Your task to perform on an android device: toggle airplane mode Image 0: 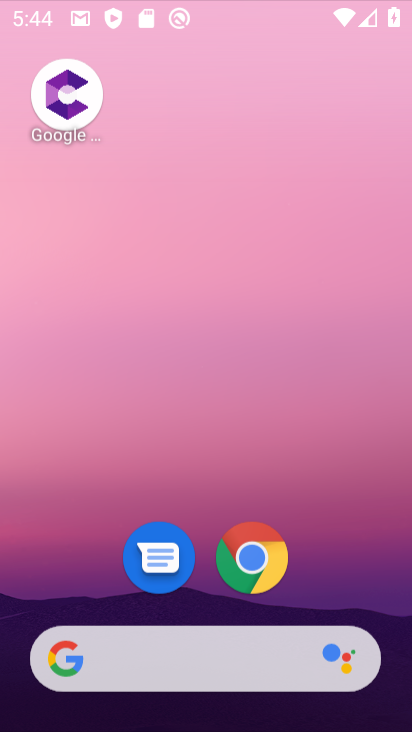
Step 0: drag from (166, 9) to (200, 17)
Your task to perform on an android device: toggle airplane mode Image 1: 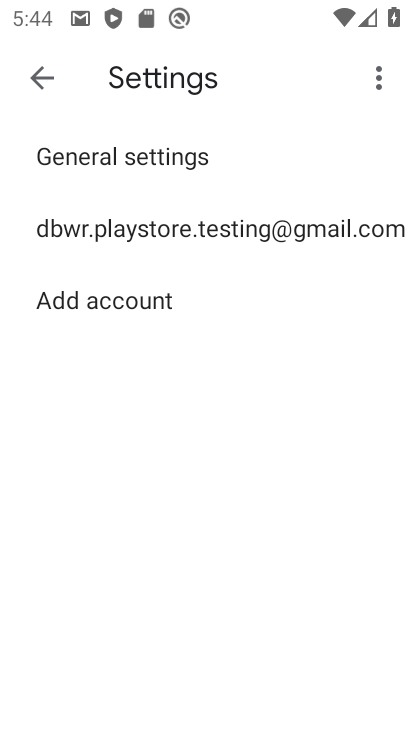
Step 1: press home button
Your task to perform on an android device: toggle airplane mode Image 2: 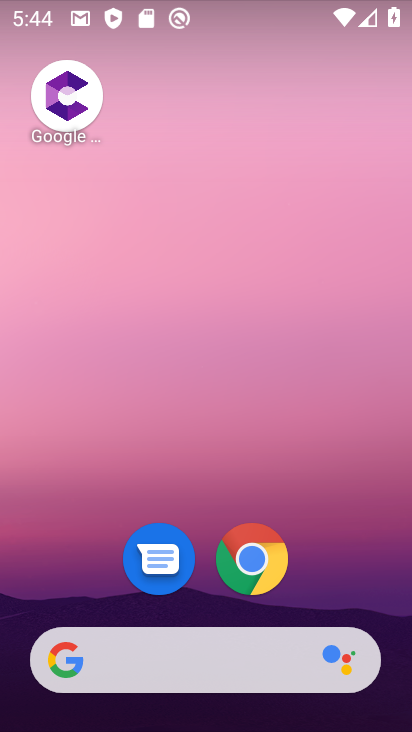
Step 2: drag from (341, 506) to (286, 106)
Your task to perform on an android device: toggle airplane mode Image 3: 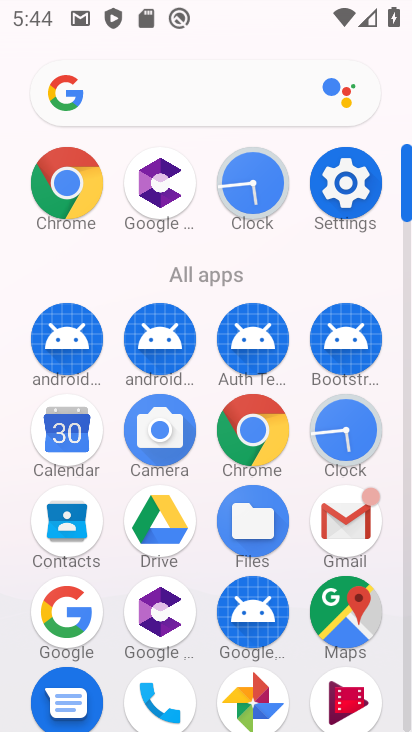
Step 3: click (346, 178)
Your task to perform on an android device: toggle airplane mode Image 4: 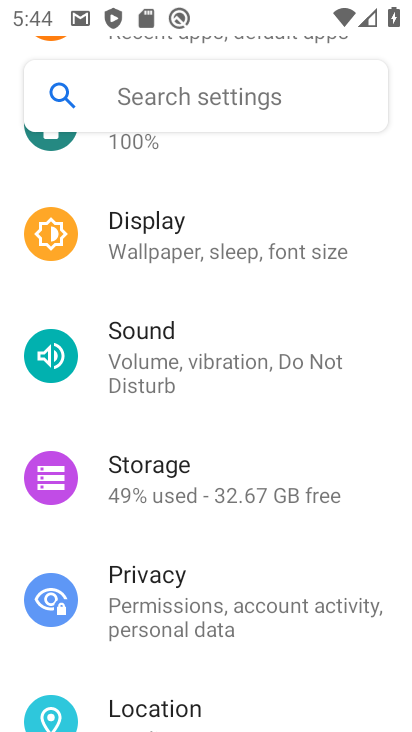
Step 4: drag from (227, 183) to (268, 667)
Your task to perform on an android device: toggle airplane mode Image 5: 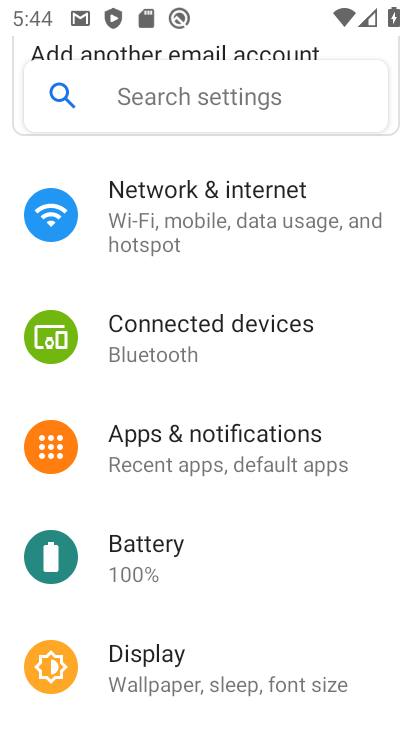
Step 5: click (180, 199)
Your task to perform on an android device: toggle airplane mode Image 6: 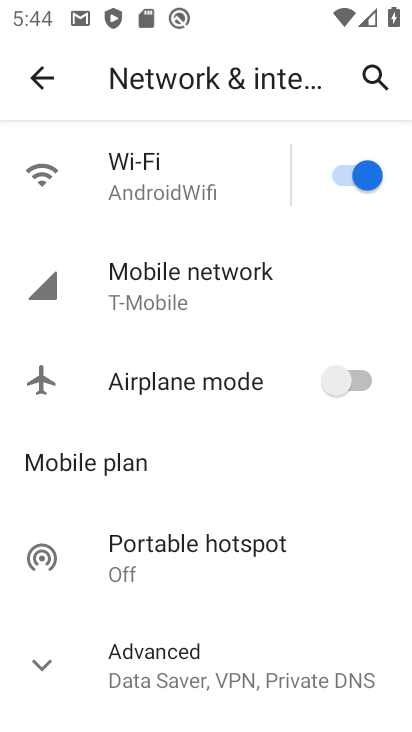
Step 6: click (331, 378)
Your task to perform on an android device: toggle airplane mode Image 7: 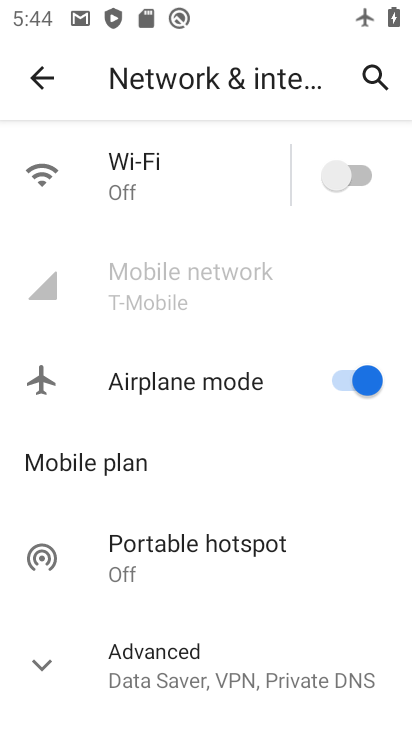
Step 7: task complete